Your task to perform on an android device: delete browsing data in the chrome app Image 0: 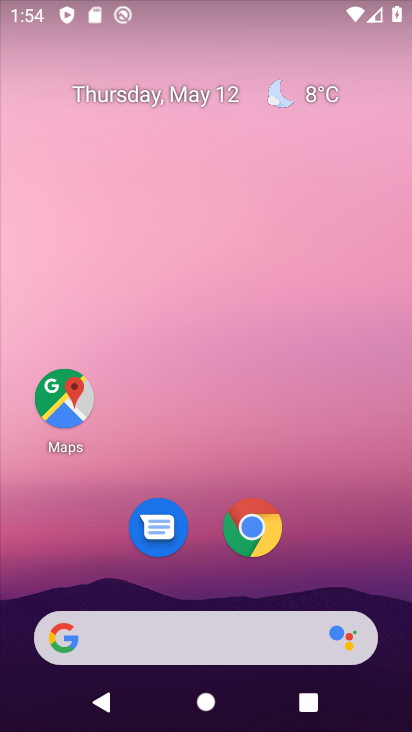
Step 0: click (266, 538)
Your task to perform on an android device: delete browsing data in the chrome app Image 1: 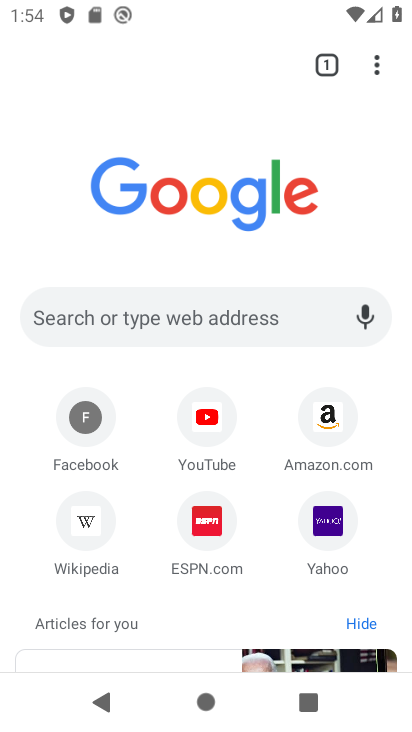
Step 1: drag from (376, 73) to (270, 566)
Your task to perform on an android device: delete browsing data in the chrome app Image 2: 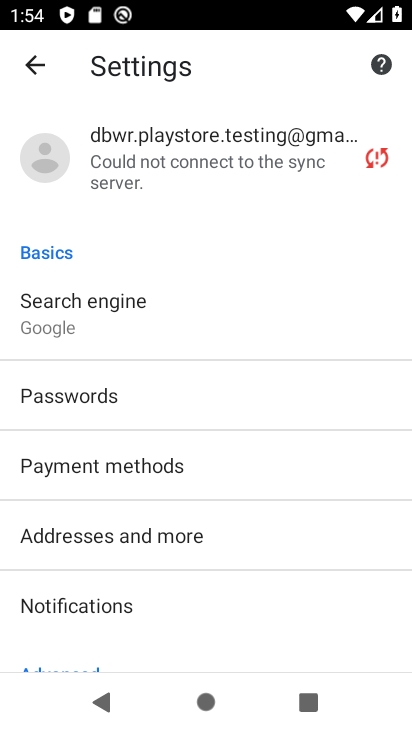
Step 2: drag from (194, 609) to (247, 361)
Your task to perform on an android device: delete browsing data in the chrome app Image 3: 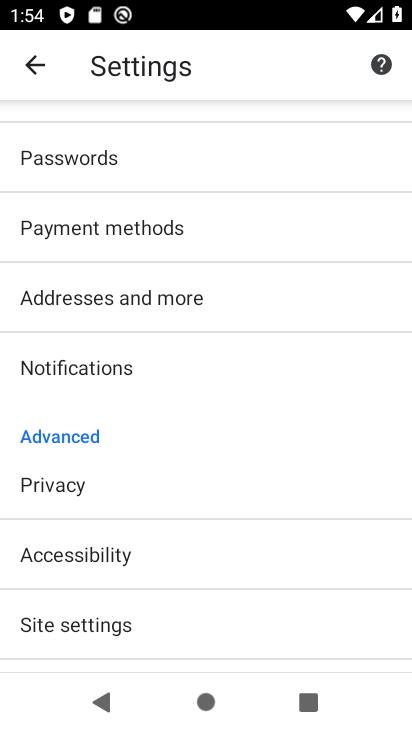
Step 3: click (162, 490)
Your task to perform on an android device: delete browsing data in the chrome app Image 4: 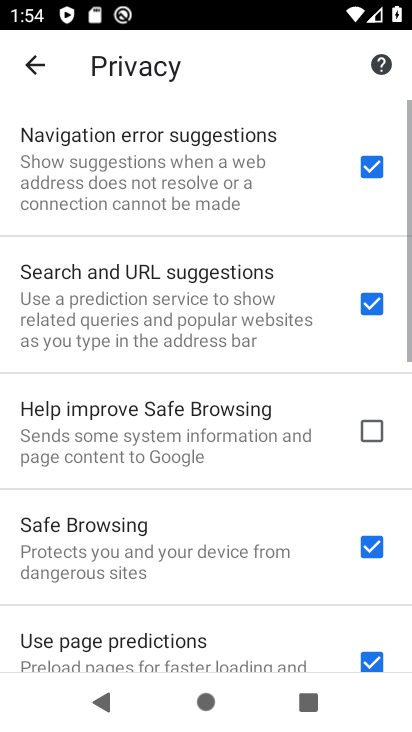
Step 4: drag from (191, 630) to (300, 146)
Your task to perform on an android device: delete browsing data in the chrome app Image 5: 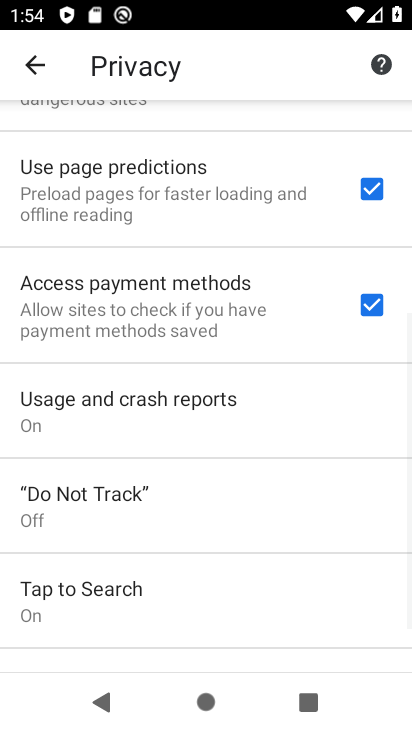
Step 5: drag from (219, 651) to (293, 303)
Your task to perform on an android device: delete browsing data in the chrome app Image 6: 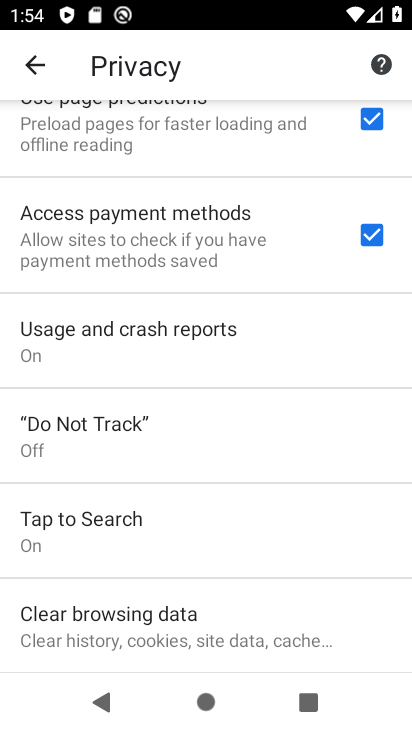
Step 6: click (195, 615)
Your task to perform on an android device: delete browsing data in the chrome app Image 7: 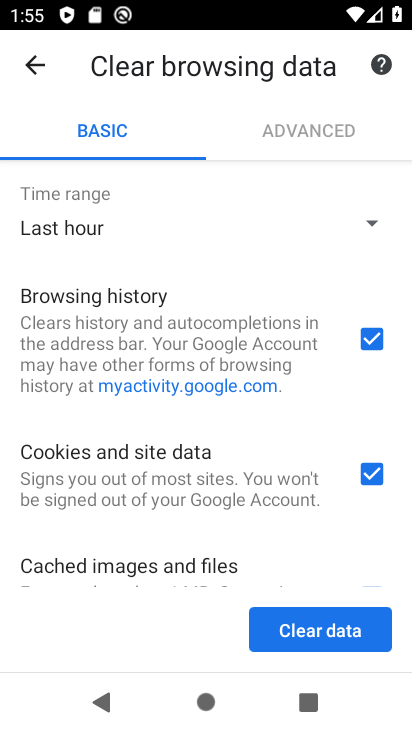
Step 7: click (386, 476)
Your task to perform on an android device: delete browsing data in the chrome app Image 8: 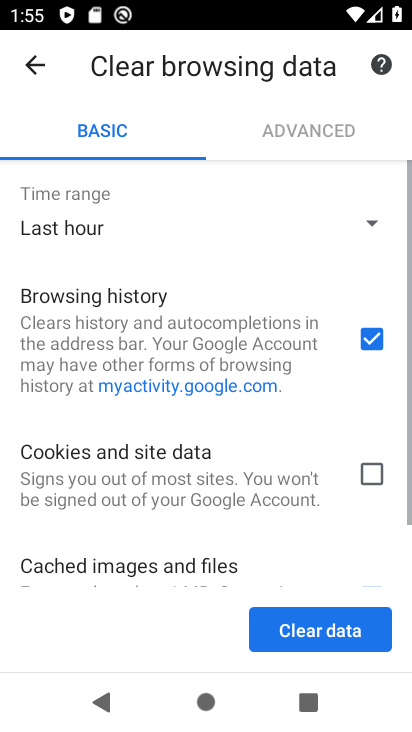
Step 8: drag from (191, 532) to (289, 240)
Your task to perform on an android device: delete browsing data in the chrome app Image 9: 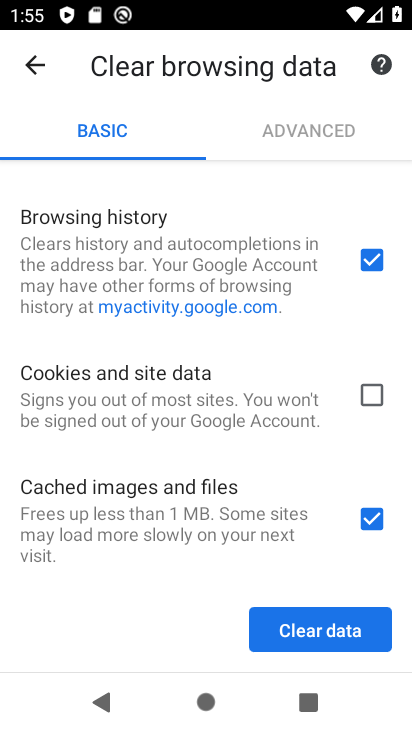
Step 9: click (367, 511)
Your task to perform on an android device: delete browsing data in the chrome app Image 10: 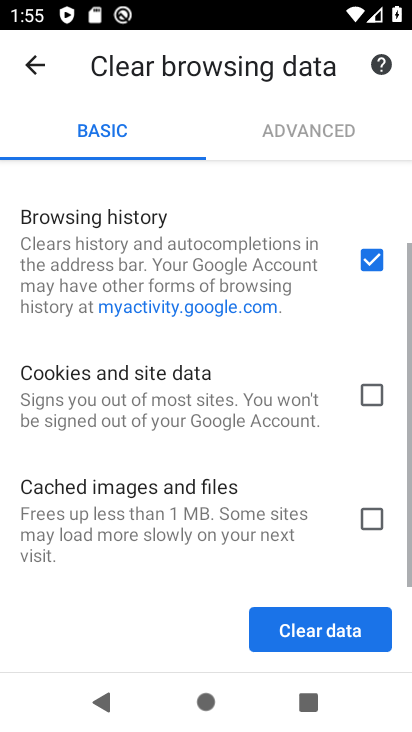
Step 10: click (321, 629)
Your task to perform on an android device: delete browsing data in the chrome app Image 11: 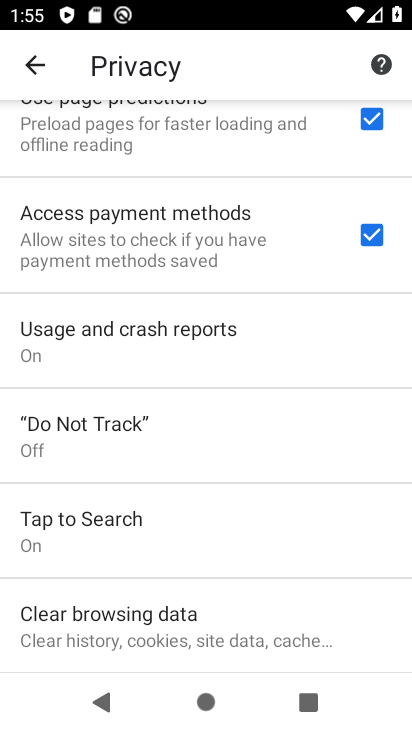
Step 11: task complete